Your task to perform on an android device: Search for seafood restaurants on Google Maps Image 0: 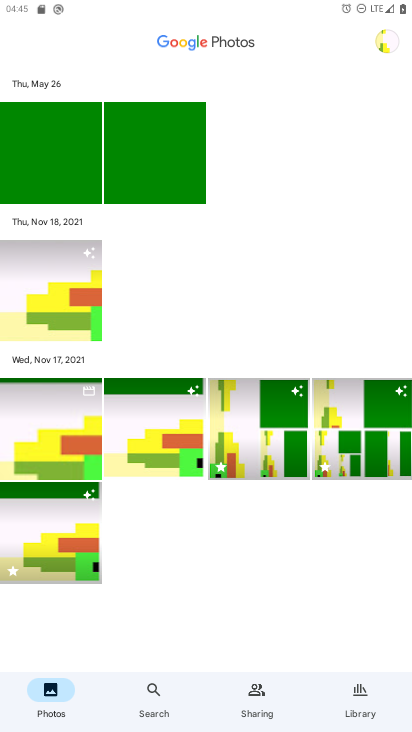
Step 0: press home button
Your task to perform on an android device: Search for seafood restaurants on Google Maps Image 1: 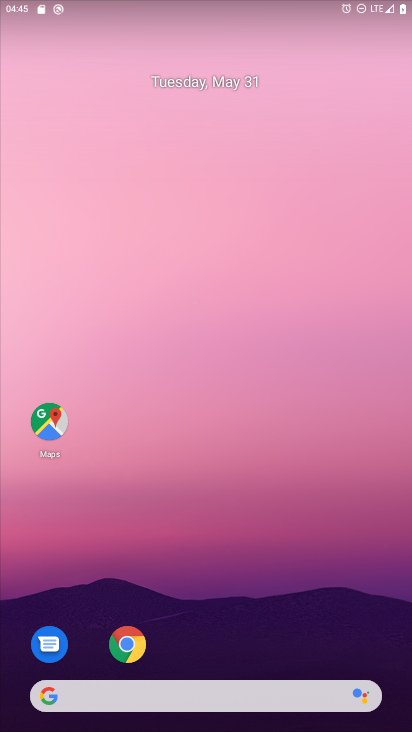
Step 1: click (45, 428)
Your task to perform on an android device: Search for seafood restaurants on Google Maps Image 2: 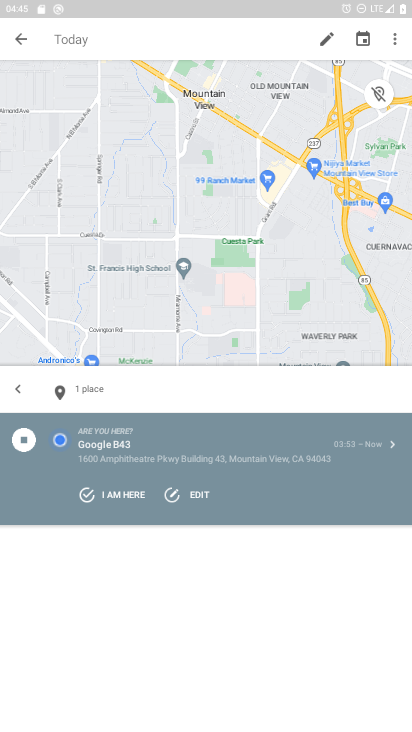
Step 2: click (18, 39)
Your task to perform on an android device: Search for seafood restaurants on Google Maps Image 3: 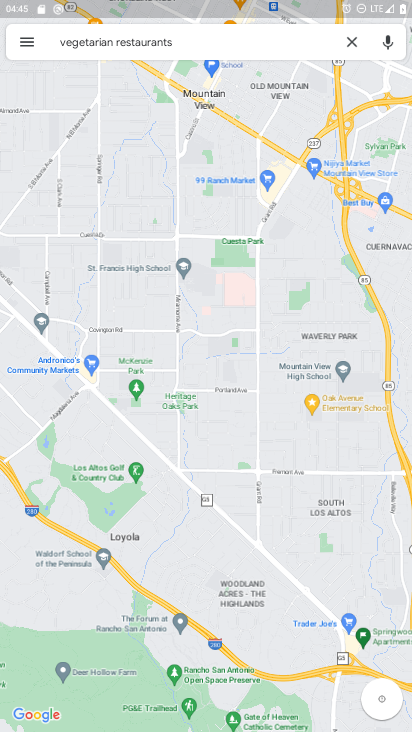
Step 3: click (153, 45)
Your task to perform on an android device: Search for seafood restaurants on Google Maps Image 4: 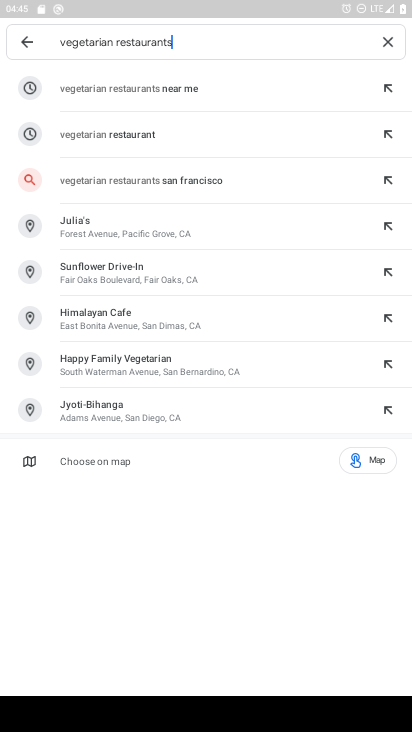
Step 4: click (385, 42)
Your task to perform on an android device: Search for seafood restaurants on Google Maps Image 5: 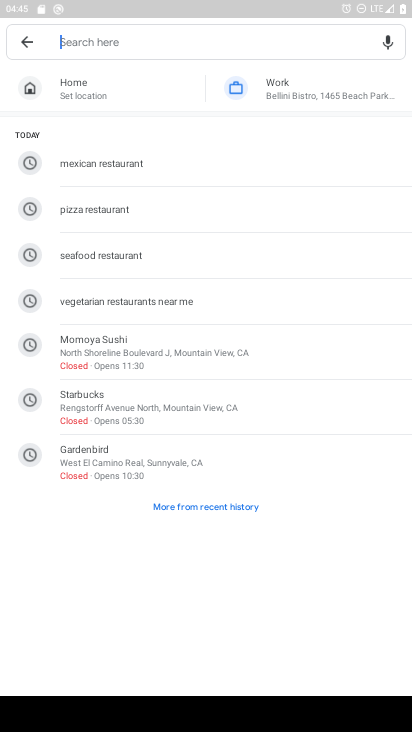
Step 5: type "seafood restaurants"
Your task to perform on an android device: Search for seafood restaurants on Google Maps Image 6: 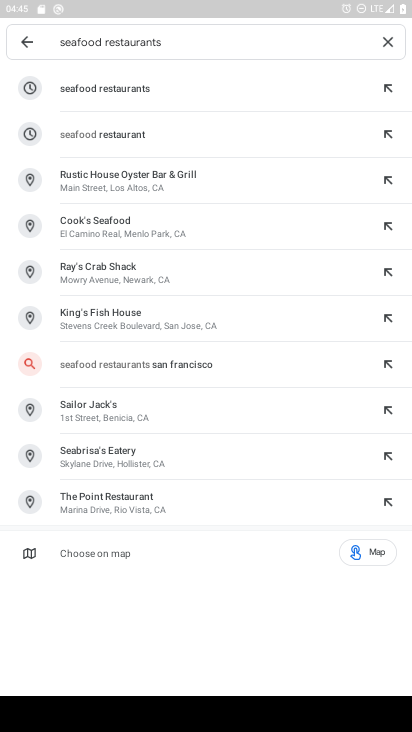
Step 6: click (138, 89)
Your task to perform on an android device: Search for seafood restaurants on Google Maps Image 7: 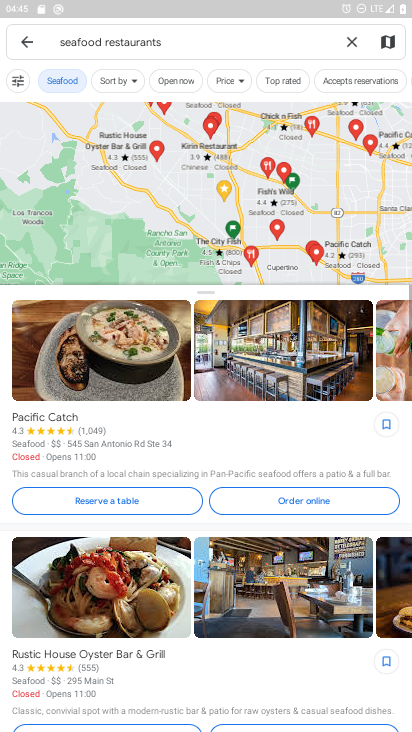
Step 7: task complete